Your task to perform on an android device: Open Chrome and go to settings Image 0: 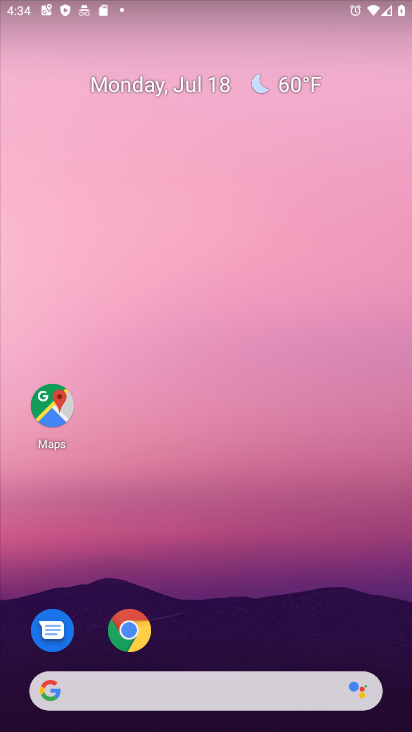
Step 0: drag from (217, 416) to (199, 223)
Your task to perform on an android device: Open Chrome and go to settings Image 1: 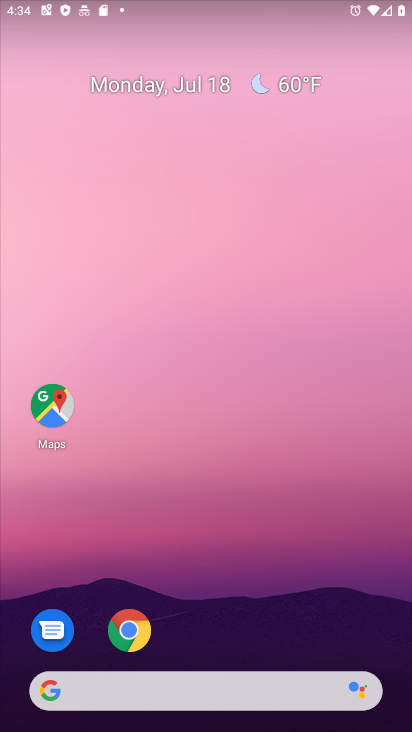
Step 1: drag from (154, 129) to (154, 60)
Your task to perform on an android device: Open Chrome and go to settings Image 2: 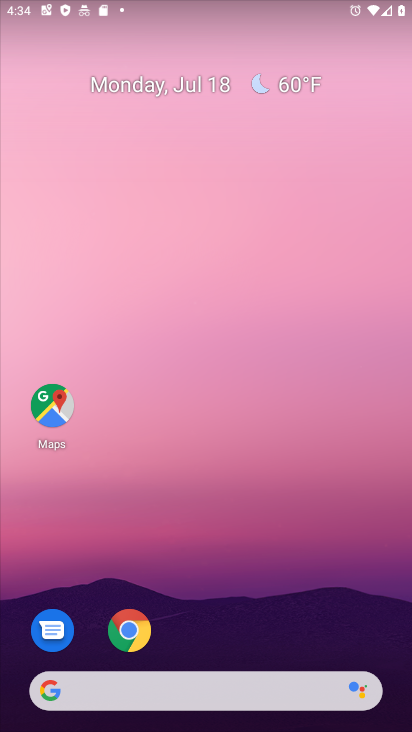
Step 2: drag from (248, 494) to (239, 78)
Your task to perform on an android device: Open Chrome and go to settings Image 3: 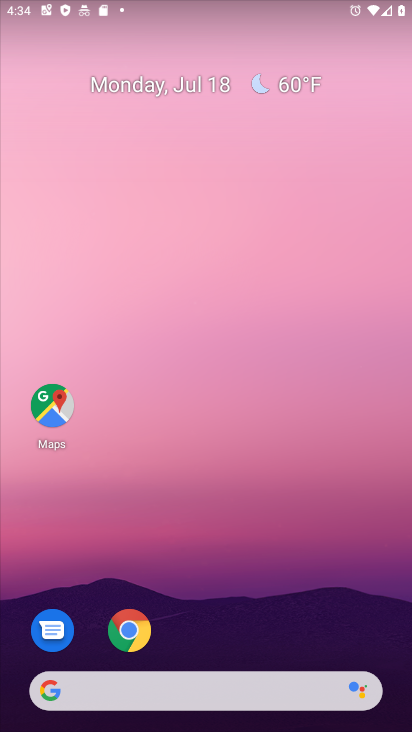
Step 3: drag from (281, 517) to (258, 139)
Your task to perform on an android device: Open Chrome and go to settings Image 4: 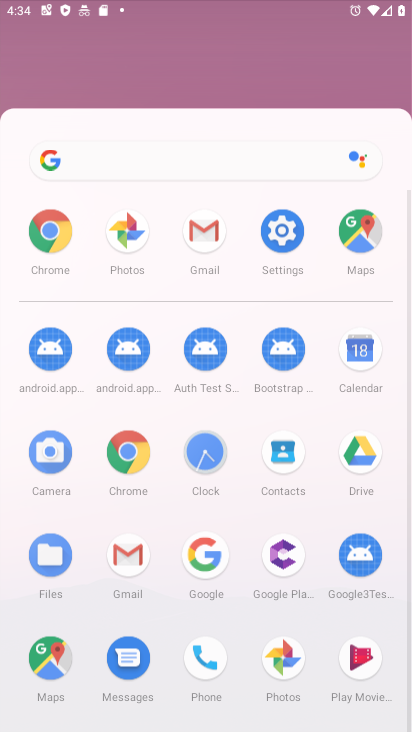
Step 4: drag from (281, 545) to (270, 145)
Your task to perform on an android device: Open Chrome and go to settings Image 5: 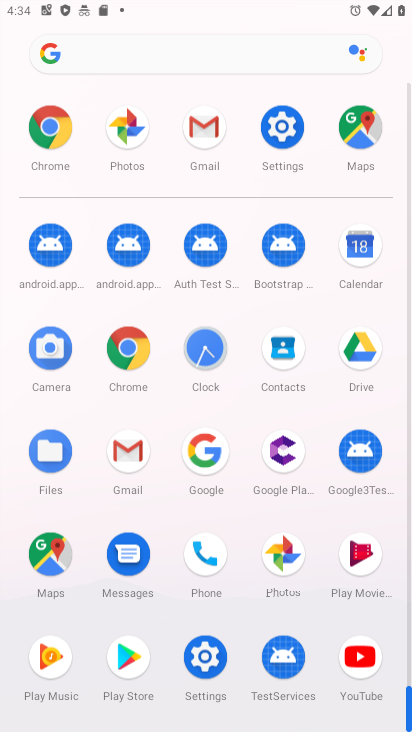
Step 5: drag from (205, 586) to (207, 187)
Your task to perform on an android device: Open Chrome and go to settings Image 6: 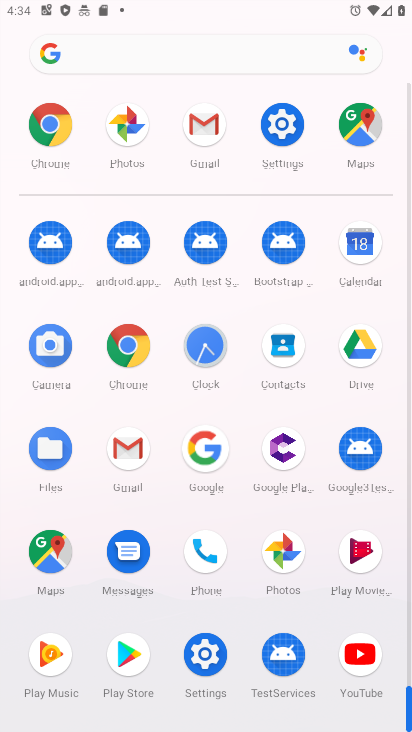
Step 6: click (44, 119)
Your task to perform on an android device: Open Chrome and go to settings Image 7: 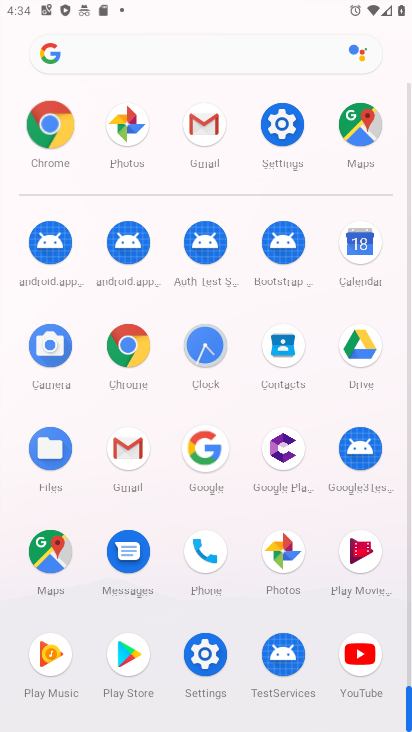
Step 7: click (44, 119)
Your task to perform on an android device: Open Chrome and go to settings Image 8: 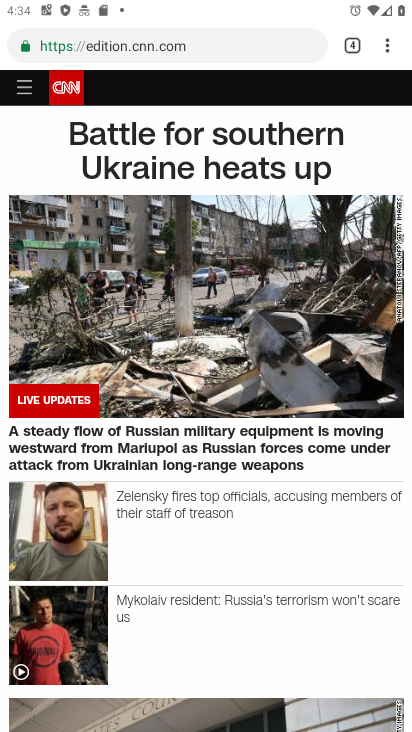
Step 8: drag from (381, 36) to (210, 507)
Your task to perform on an android device: Open Chrome and go to settings Image 9: 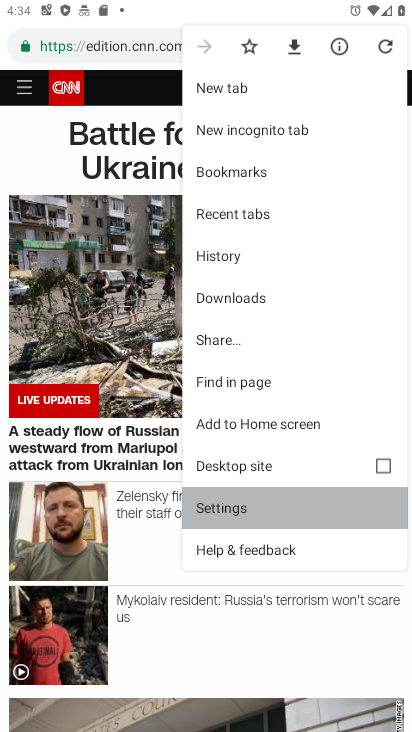
Step 9: click (213, 505)
Your task to perform on an android device: Open Chrome and go to settings Image 10: 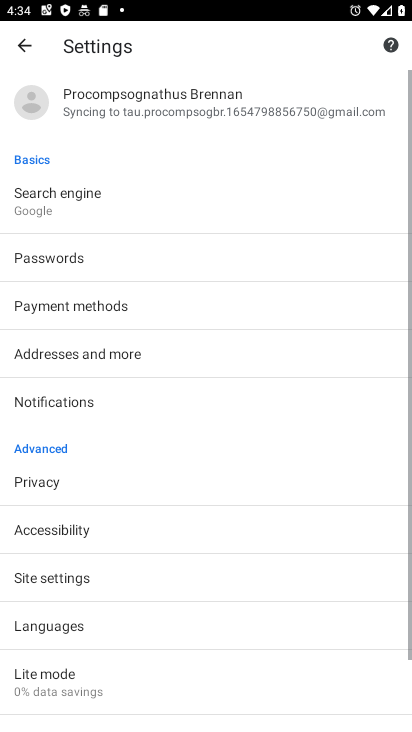
Step 10: task complete